Your task to perform on an android device: open a bookmark in the chrome app Image 0: 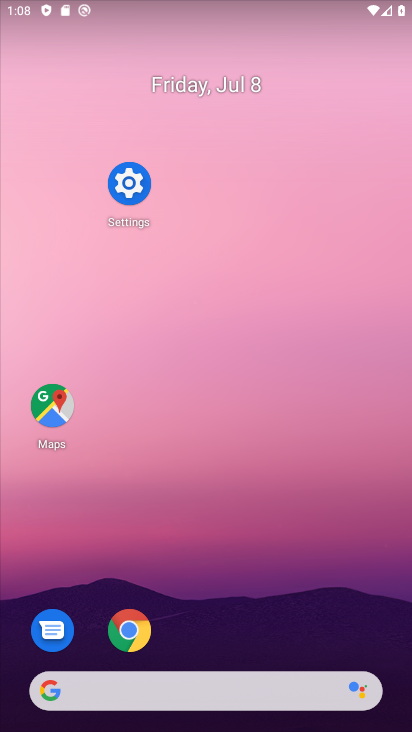
Step 0: click (126, 639)
Your task to perform on an android device: open a bookmark in the chrome app Image 1: 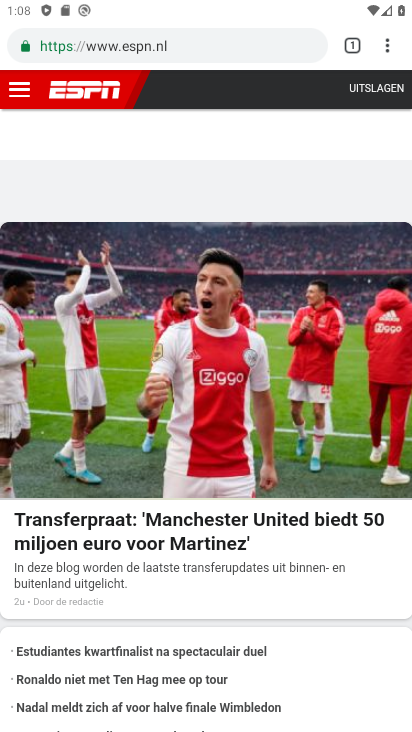
Step 1: click (382, 39)
Your task to perform on an android device: open a bookmark in the chrome app Image 2: 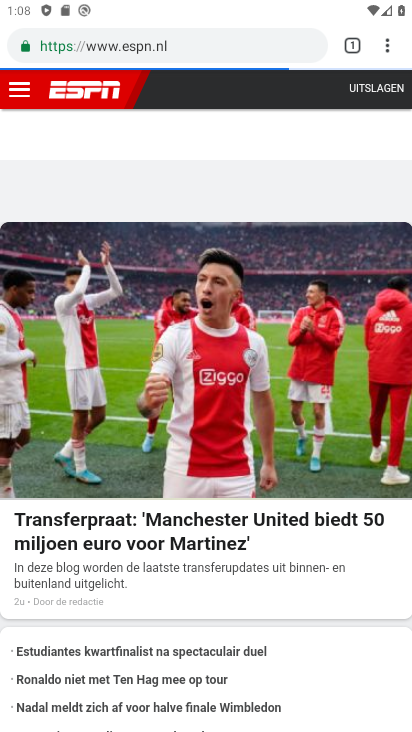
Step 2: click (385, 50)
Your task to perform on an android device: open a bookmark in the chrome app Image 3: 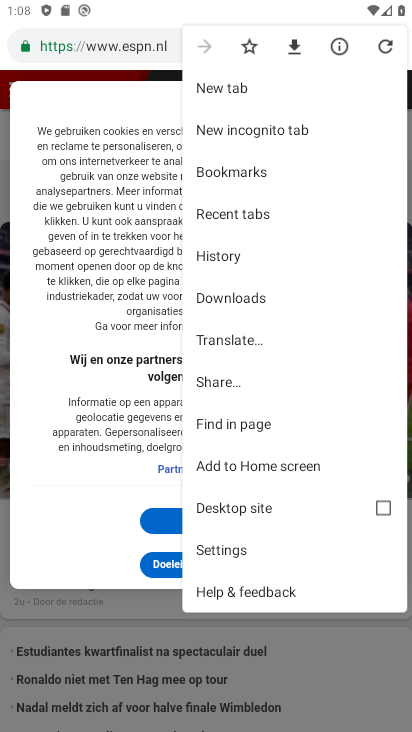
Step 3: click (258, 178)
Your task to perform on an android device: open a bookmark in the chrome app Image 4: 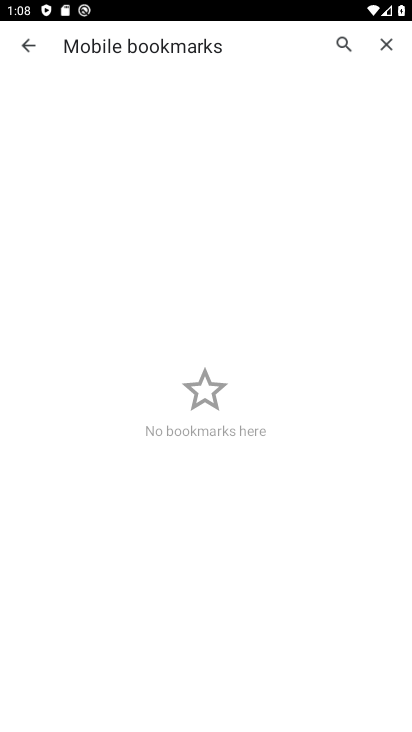
Step 4: task complete